Your task to perform on an android device: turn on airplane mode Image 0: 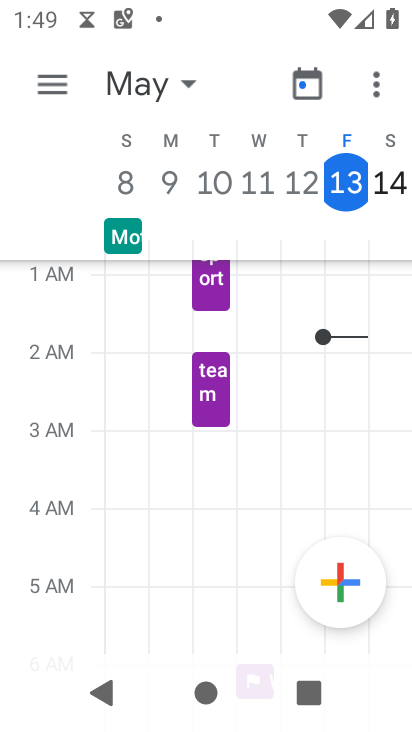
Step 0: press home button
Your task to perform on an android device: turn on airplane mode Image 1: 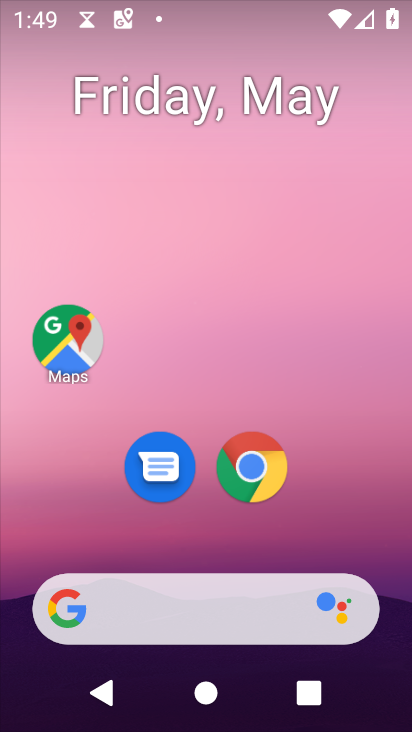
Step 1: drag from (319, 542) to (336, 211)
Your task to perform on an android device: turn on airplane mode Image 2: 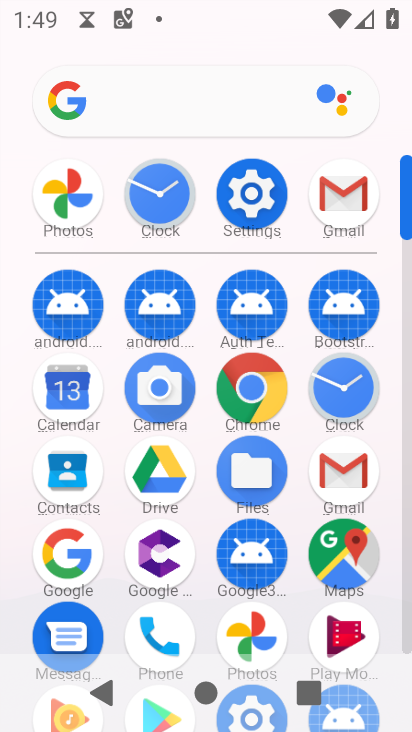
Step 2: click (251, 189)
Your task to perform on an android device: turn on airplane mode Image 3: 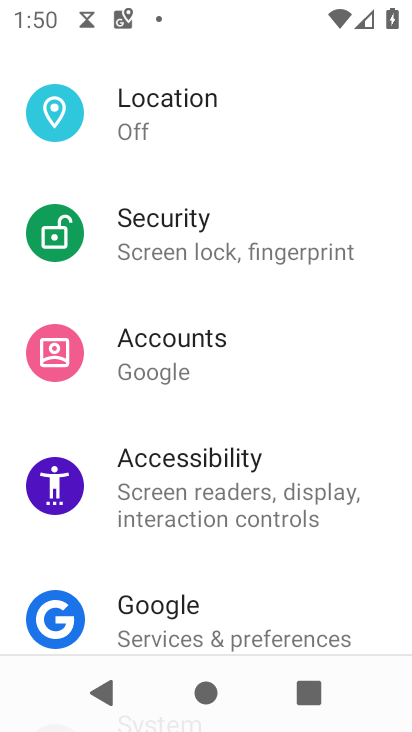
Step 3: drag from (250, 189) to (262, 346)
Your task to perform on an android device: turn on airplane mode Image 4: 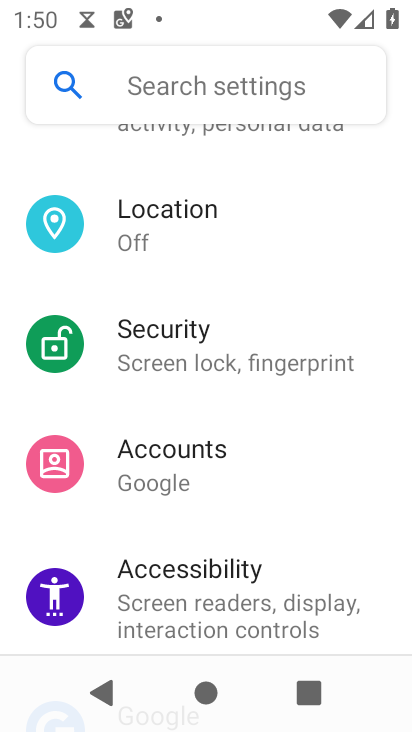
Step 4: drag from (279, 268) to (244, 458)
Your task to perform on an android device: turn on airplane mode Image 5: 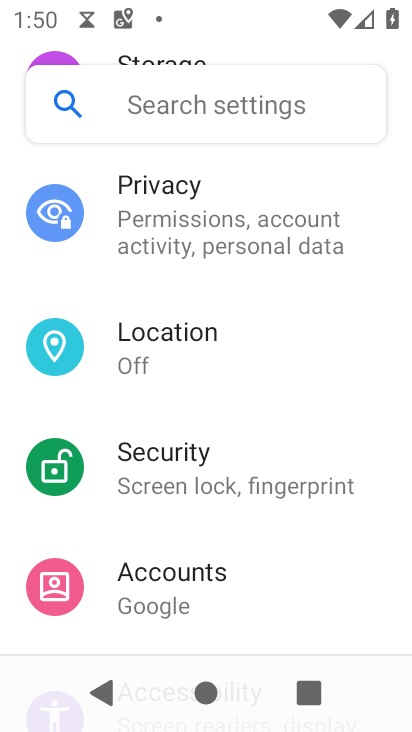
Step 5: drag from (294, 286) to (270, 500)
Your task to perform on an android device: turn on airplane mode Image 6: 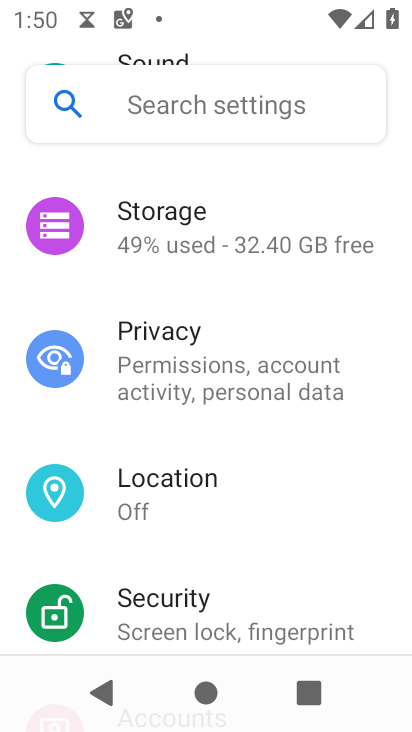
Step 6: drag from (262, 278) to (290, 463)
Your task to perform on an android device: turn on airplane mode Image 7: 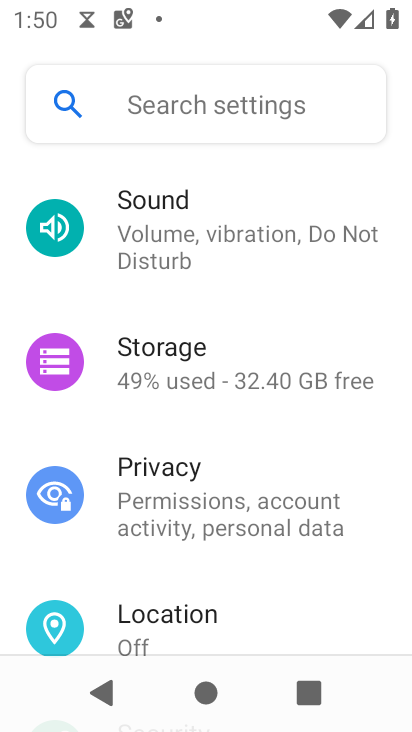
Step 7: drag from (269, 293) to (272, 440)
Your task to perform on an android device: turn on airplane mode Image 8: 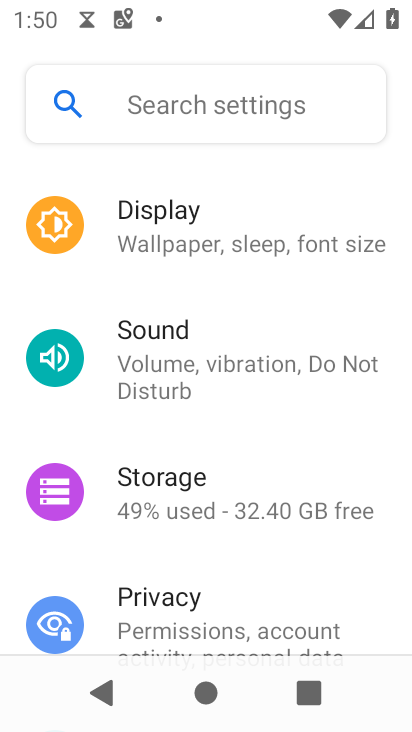
Step 8: drag from (268, 283) to (270, 494)
Your task to perform on an android device: turn on airplane mode Image 9: 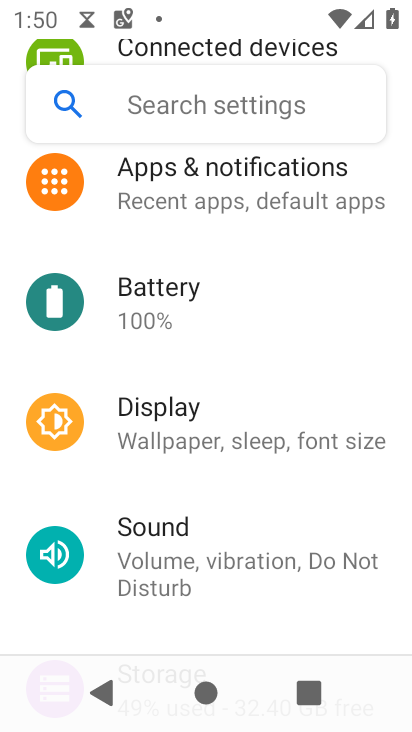
Step 9: drag from (251, 257) to (269, 442)
Your task to perform on an android device: turn on airplane mode Image 10: 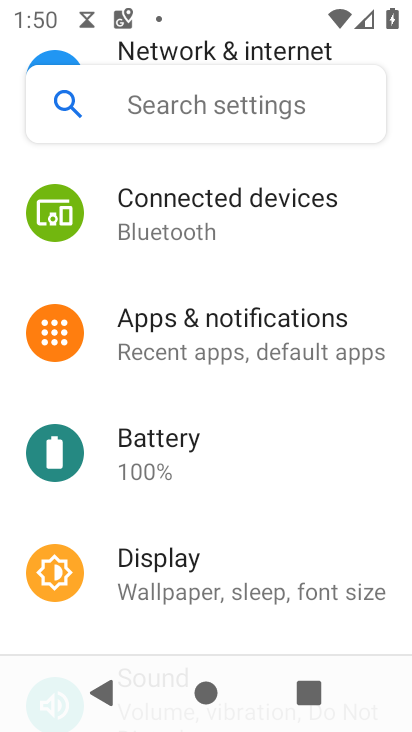
Step 10: drag from (254, 248) to (247, 476)
Your task to perform on an android device: turn on airplane mode Image 11: 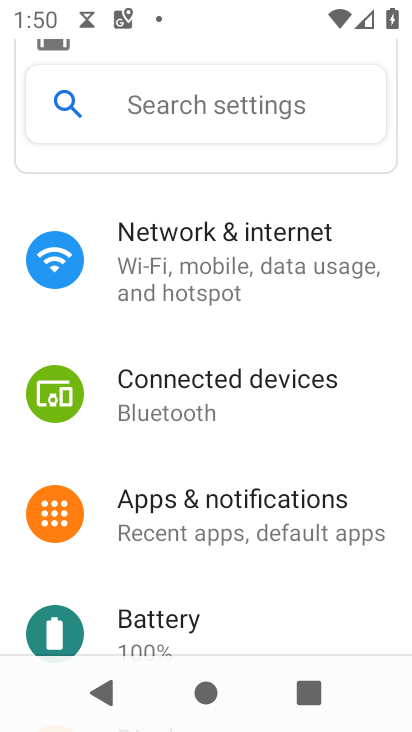
Step 11: click (225, 234)
Your task to perform on an android device: turn on airplane mode Image 12: 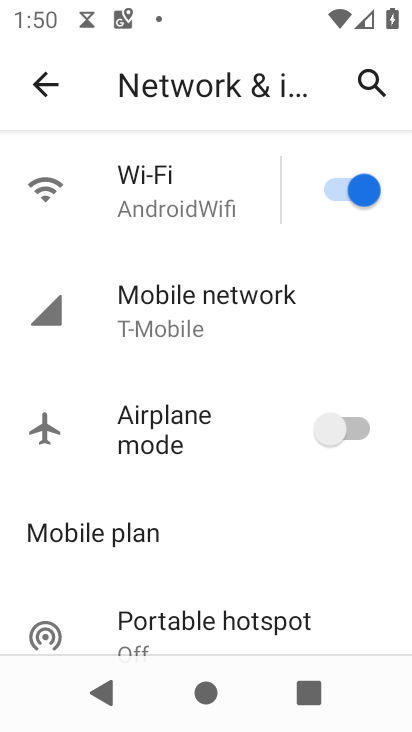
Step 12: click (353, 431)
Your task to perform on an android device: turn on airplane mode Image 13: 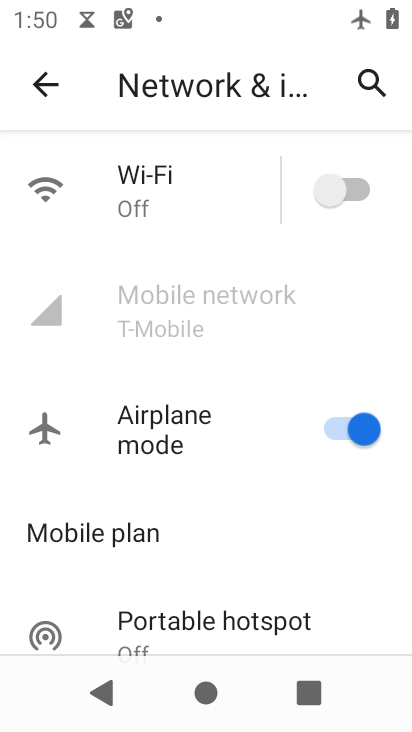
Step 13: task complete